Your task to perform on an android device: What is the news today? Image 0: 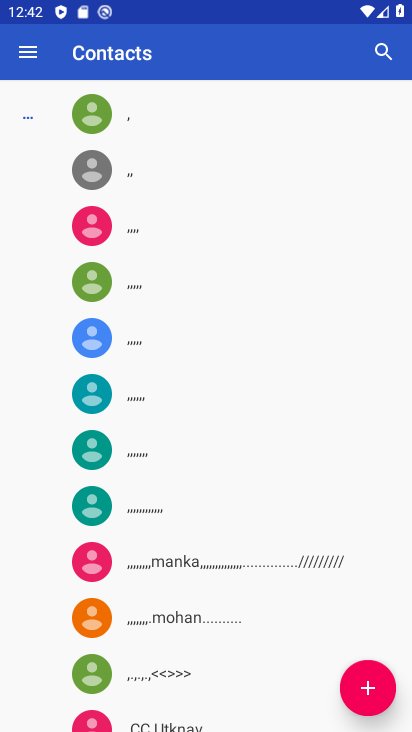
Step 0: press home button
Your task to perform on an android device: What is the news today? Image 1: 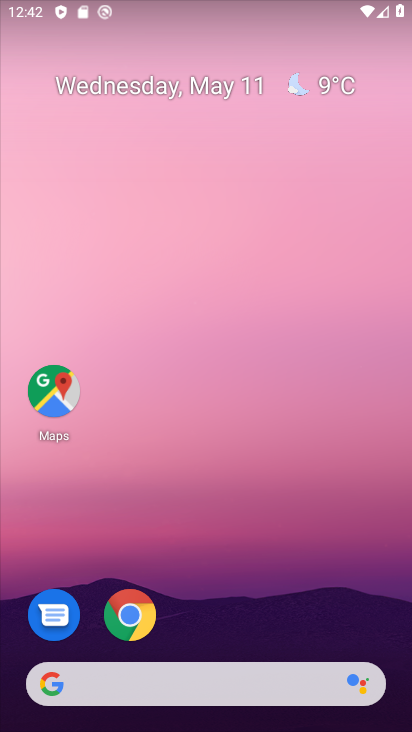
Step 1: drag from (289, 585) to (301, 38)
Your task to perform on an android device: What is the news today? Image 2: 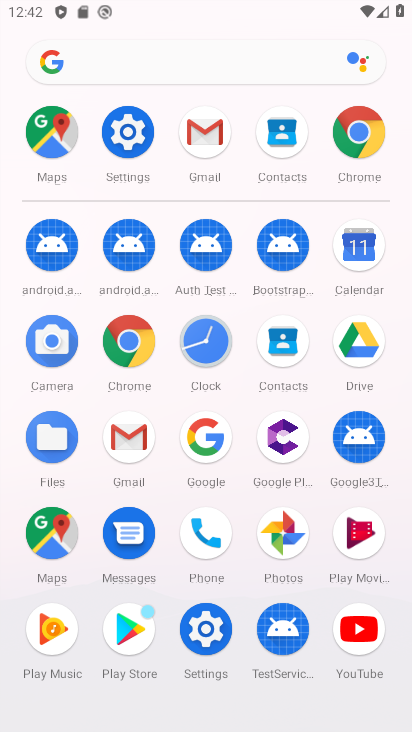
Step 2: click (147, 359)
Your task to perform on an android device: What is the news today? Image 3: 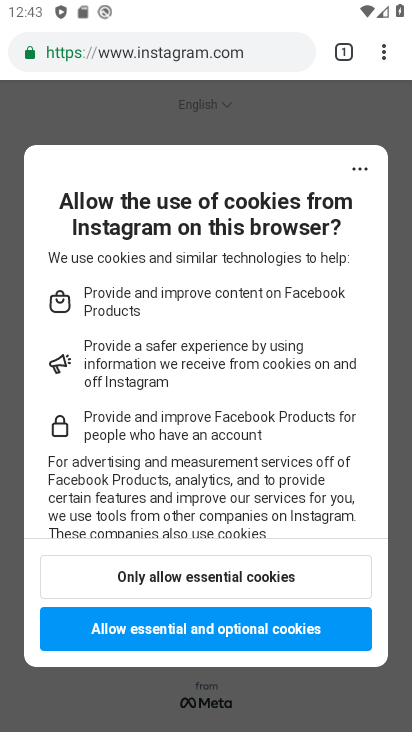
Step 3: click (340, 55)
Your task to perform on an android device: What is the news today? Image 4: 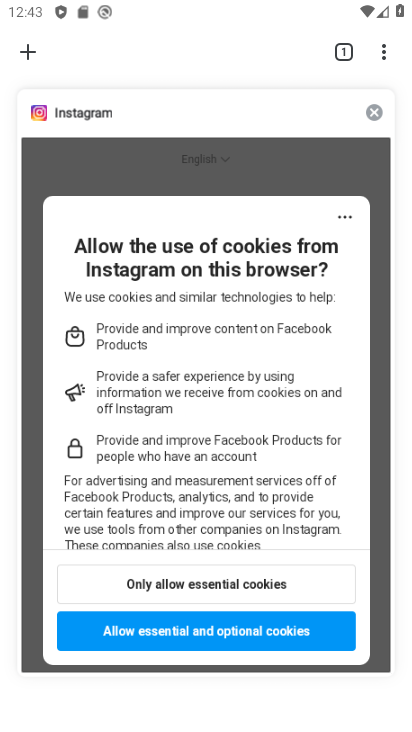
Step 4: click (25, 54)
Your task to perform on an android device: What is the news today? Image 5: 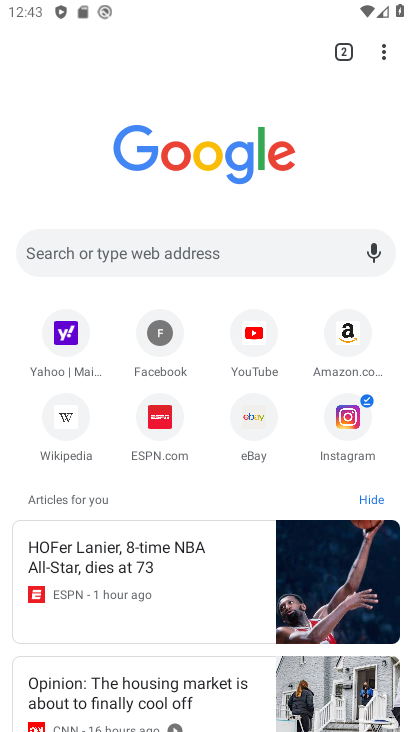
Step 5: task complete